Your task to perform on an android device: Go to Google maps Image 0: 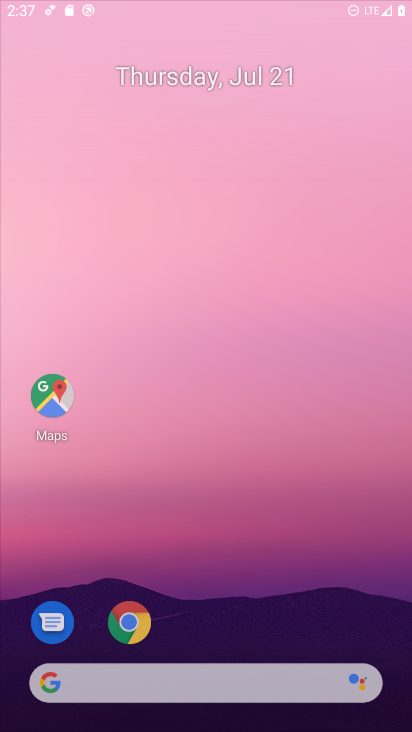
Step 0: click (266, 246)
Your task to perform on an android device: Go to Google maps Image 1: 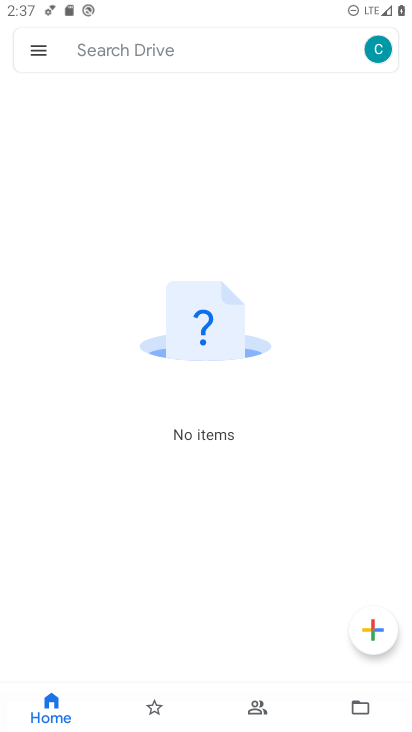
Step 1: drag from (332, 594) to (350, 134)
Your task to perform on an android device: Go to Google maps Image 2: 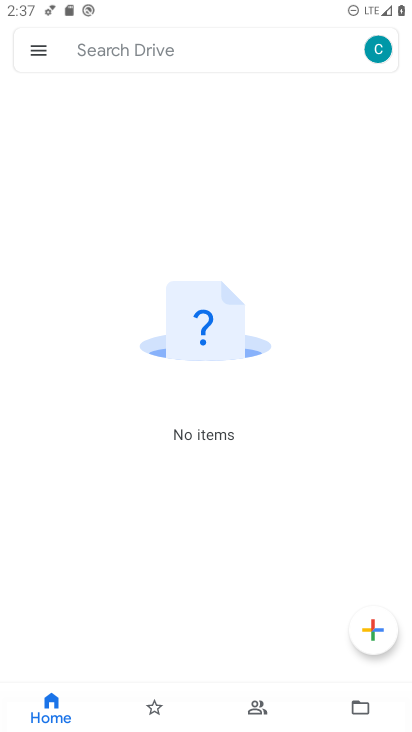
Step 2: press home button
Your task to perform on an android device: Go to Google maps Image 3: 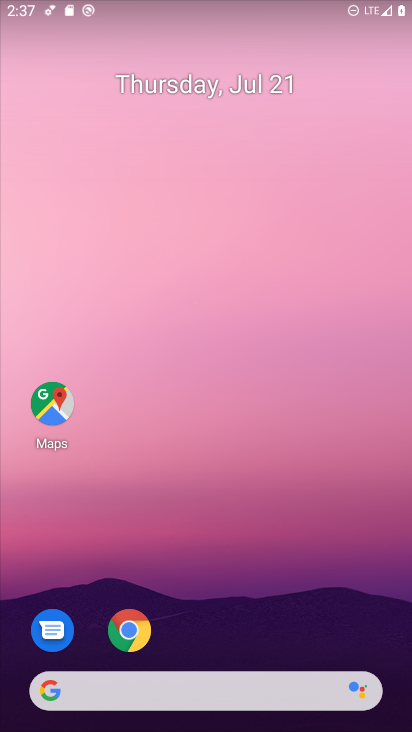
Step 3: click (67, 416)
Your task to perform on an android device: Go to Google maps Image 4: 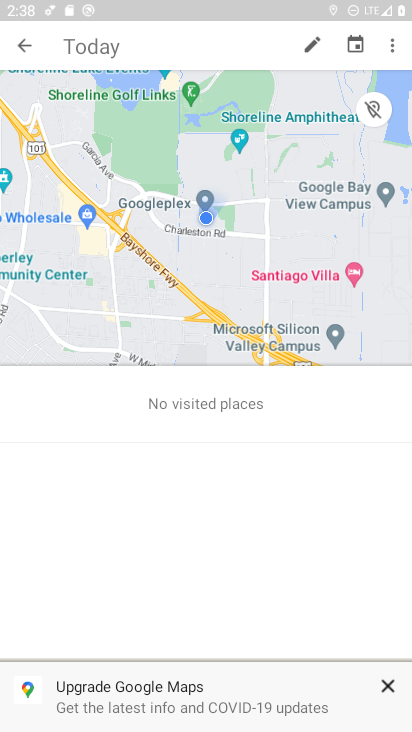
Step 4: task complete